Your task to perform on an android device: Go to display settings Image 0: 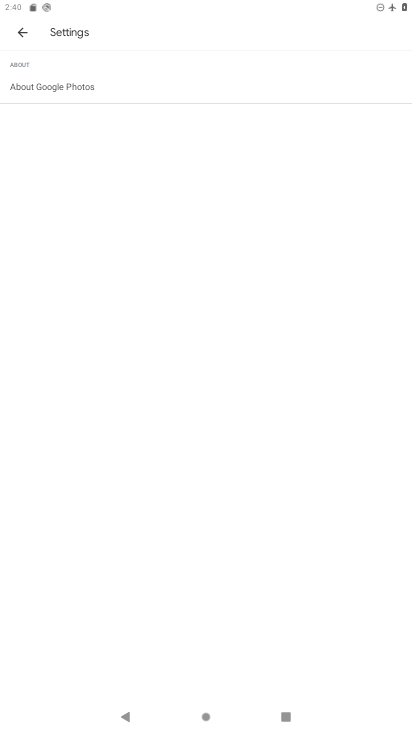
Step 0: press home button
Your task to perform on an android device: Go to display settings Image 1: 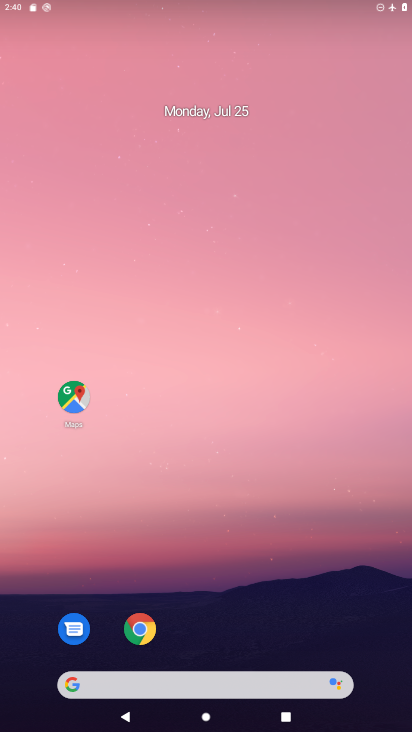
Step 1: drag from (285, 374) to (276, 164)
Your task to perform on an android device: Go to display settings Image 2: 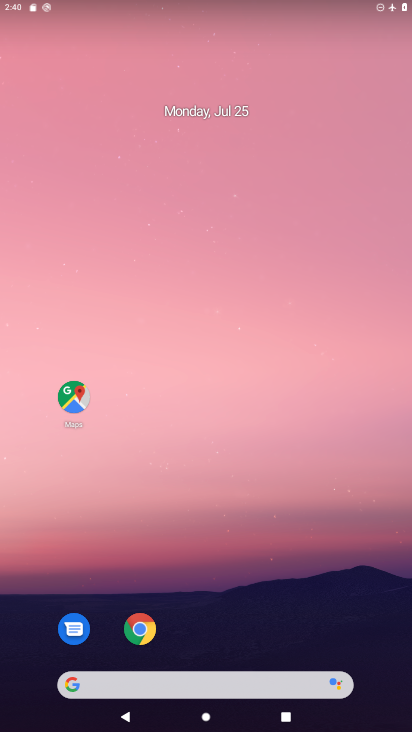
Step 2: drag from (344, 566) to (304, 154)
Your task to perform on an android device: Go to display settings Image 3: 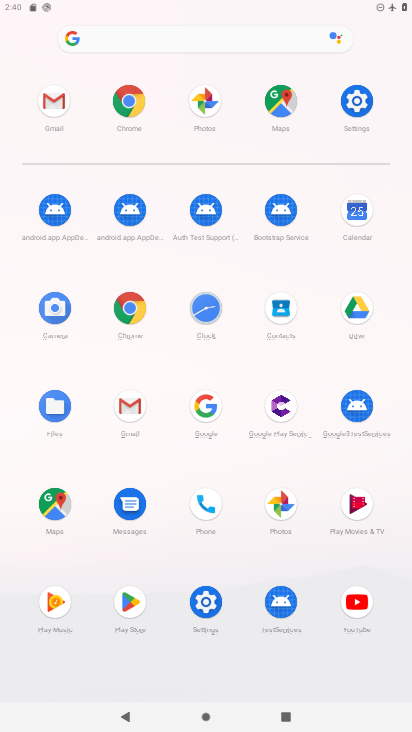
Step 3: click (357, 105)
Your task to perform on an android device: Go to display settings Image 4: 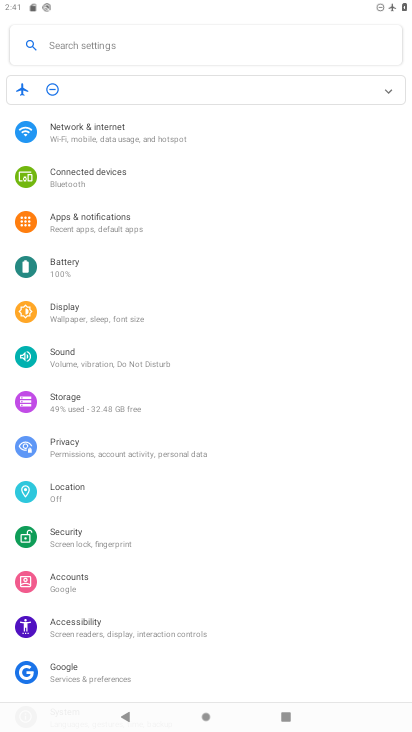
Step 4: click (73, 313)
Your task to perform on an android device: Go to display settings Image 5: 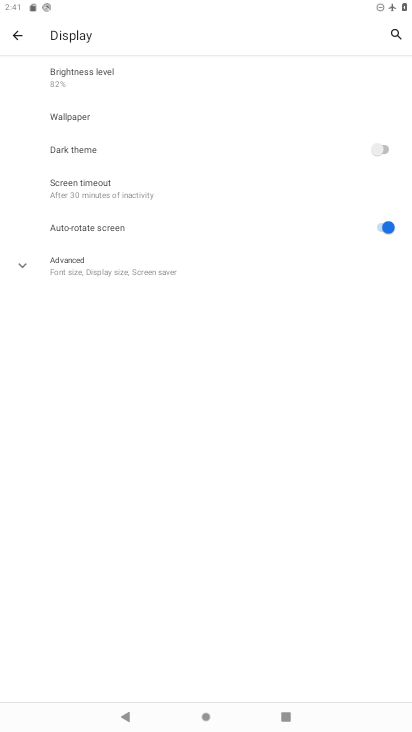
Step 5: task complete